Your task to perform on an android device: turn on bluetooth scan Image 0: 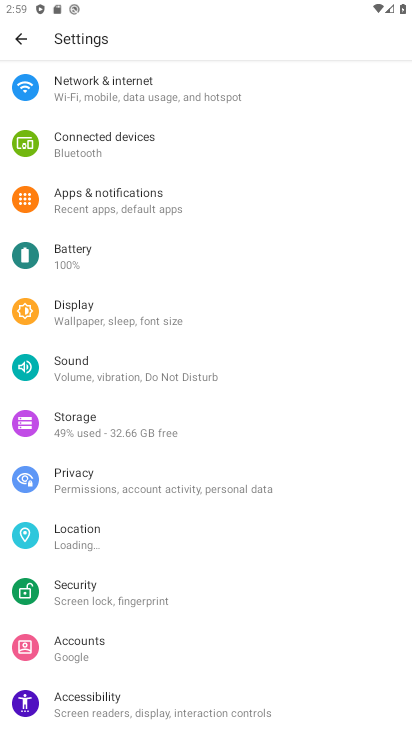
Step 0: click (136, 547)
Your task to perform on an android device: turn on bluetooth scan Image 1: 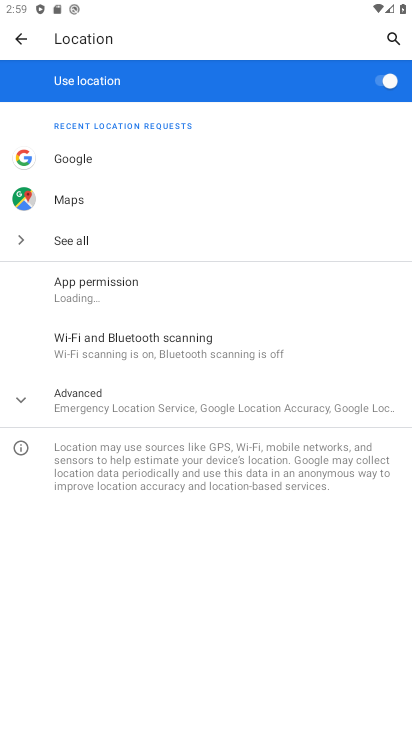
Step 1: click (203, 343)
Your task to perform on an android device: turn on bluetooth scan Image 2: 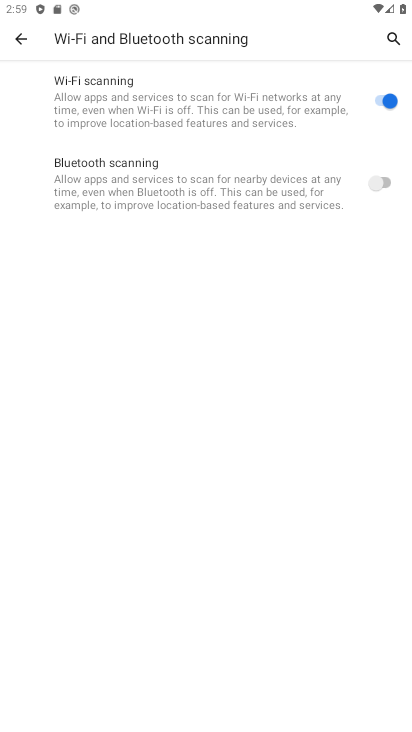
Step 2: click (384, 191)
Your task to perform on an android device: turn on bluetooth scan Image 3: 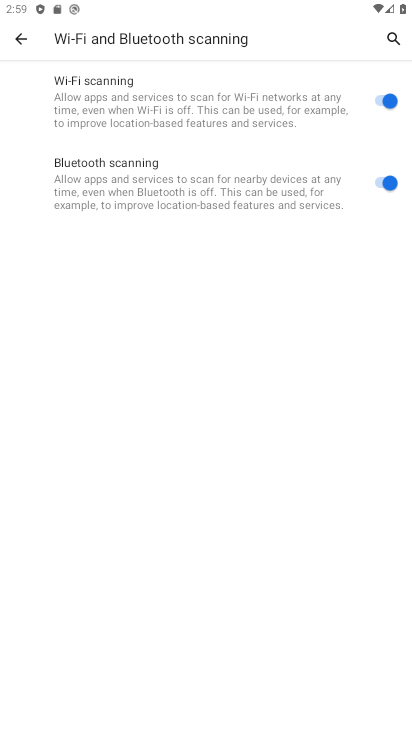
Step 3: task complete